Your task to perform on an android device: Search for Italian restaurants on Maps Image 0: 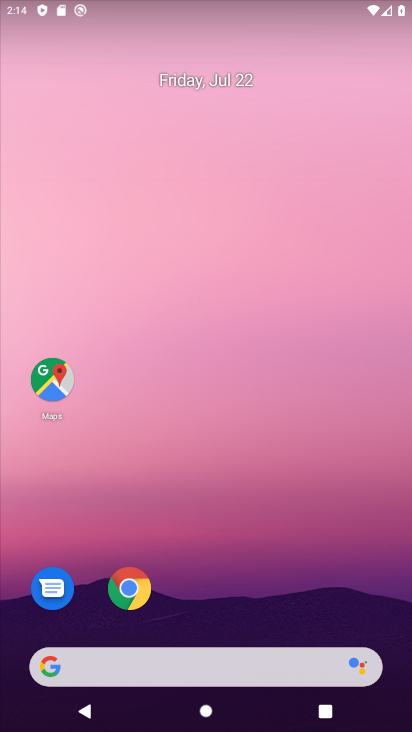
Step 0: click (50, 375)
Your task to perform on an android device: Search for Italian restaurants on Maps Image 1: 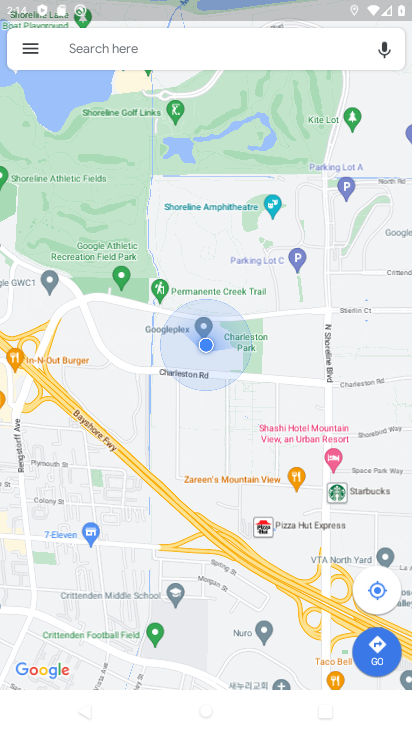
Step 1: click (142, 45)
Your task to perform on an android device: Search for Italian restaurants on Maps Image 2: 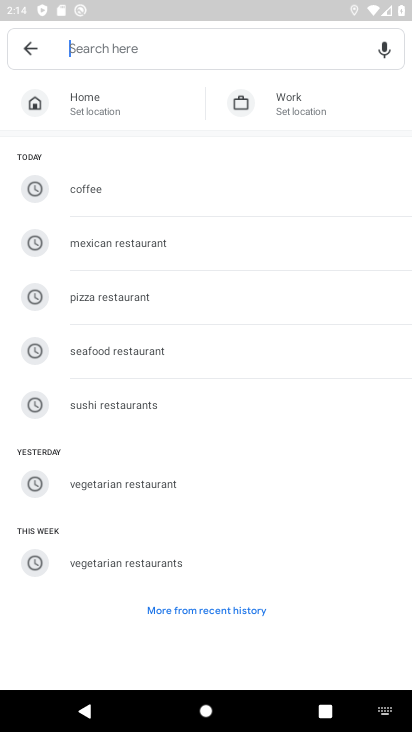
Step 2: type "italian restaurant"
Your task to perform on an android device: Search for Italian restaurants on Maps Image 3: 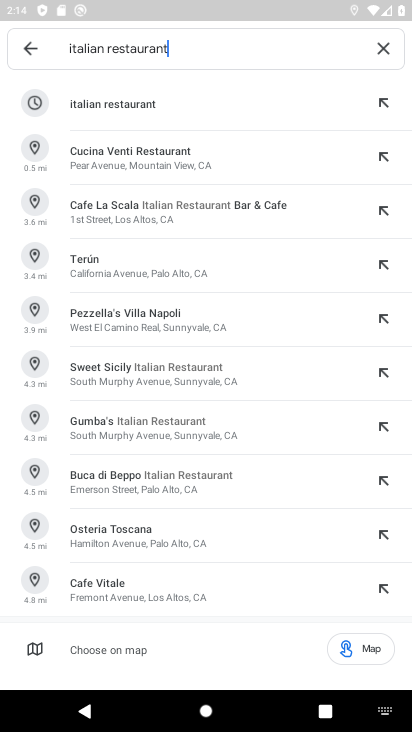
Step 3: click (140, 107)
Your task to perform on an android device: Search for Italian restaurants on Maps Image 4: 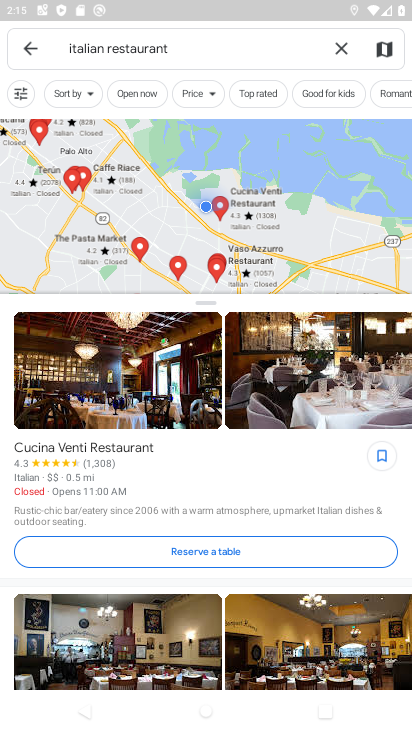
Step 4: task complete